Your task to perform on an android device: manage bookmarks in the chrome app Image 0: 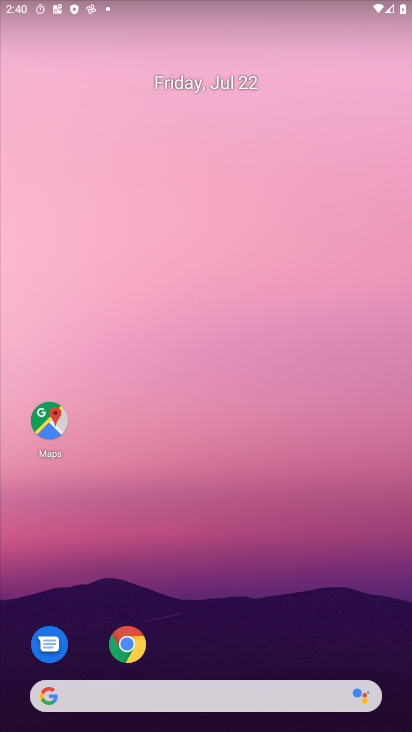
Step 0: drag from (220, 672) to (248, 204)
Your task to perform on an android device: manage bookmarks in the chrome app Image 1: 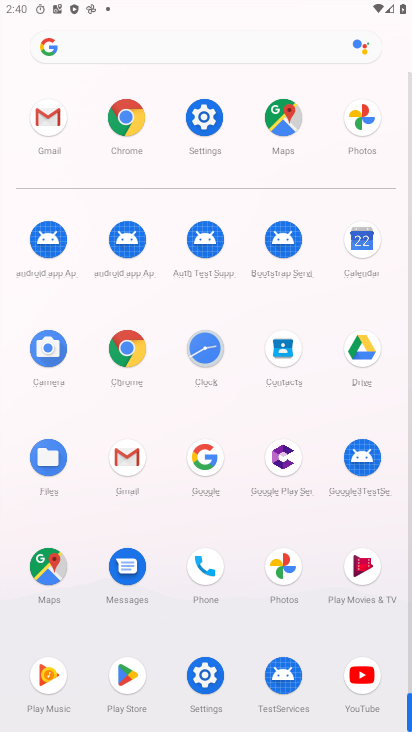
Step 1: click (134, 133)
Your task to perform on an android device: manage bookmarks in the chrome app Image 2: 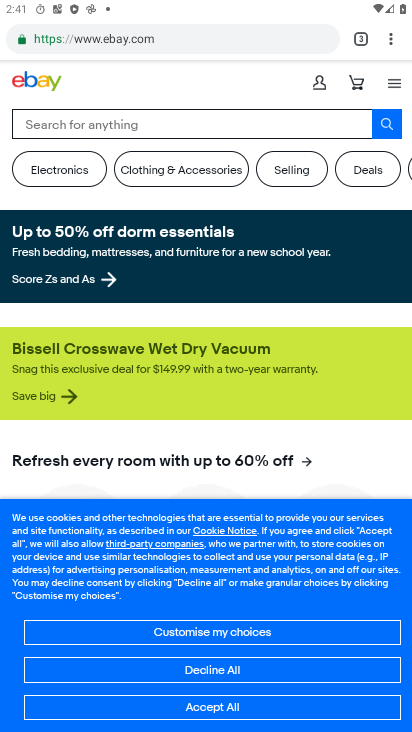
Step 2: click (391, 46)
Your task to perform on an android device: manage bookmarks in the chrome app Image 3: 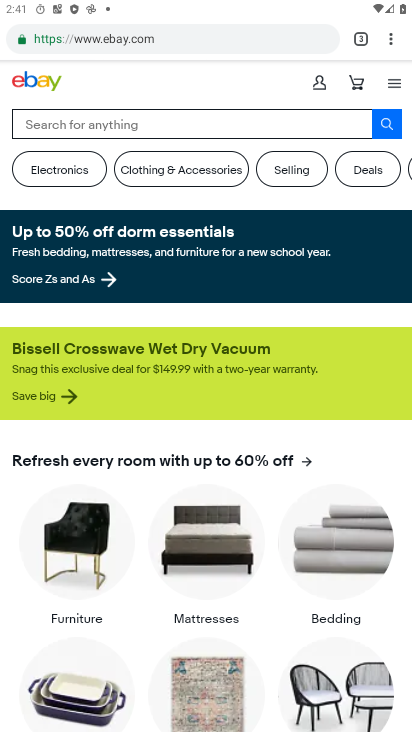
Step 3: click (385, 46)
Your task to perform on an android device: manage bookmarks in the chrome app Image 4: 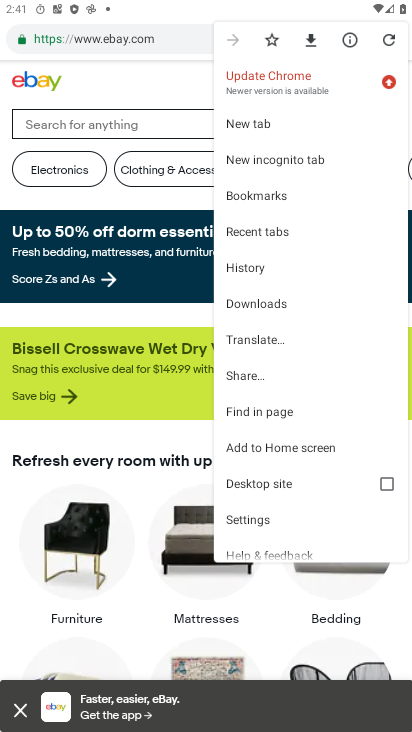
Step 4: click (274, 197)
Your task to perform on an android device: manage bookmarks in the chrome app Image 5: 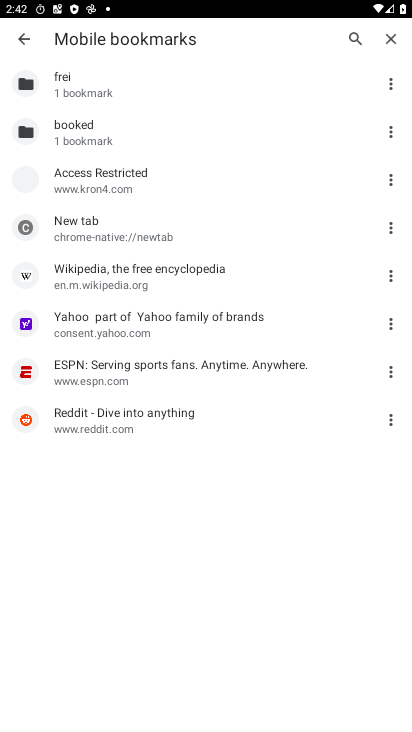
Step 5: task complete